Your task to perform on an android device: Search for seafood restaurants on Google Maps Image 0: 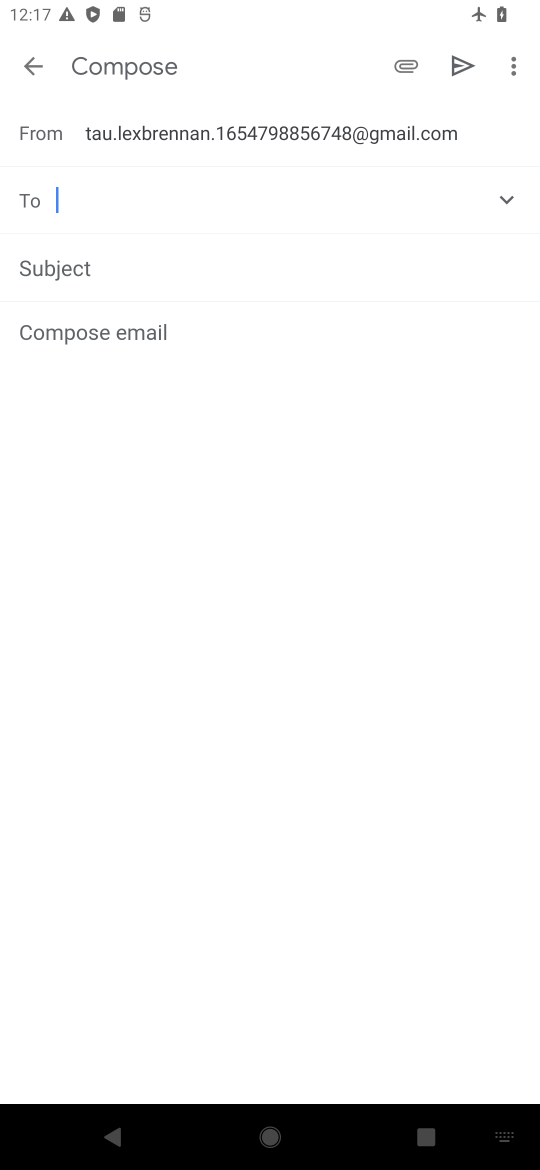
Step 0: press home button
Your task to perform on an android device: Search for seafood restaurants on Google Maps Image 1: 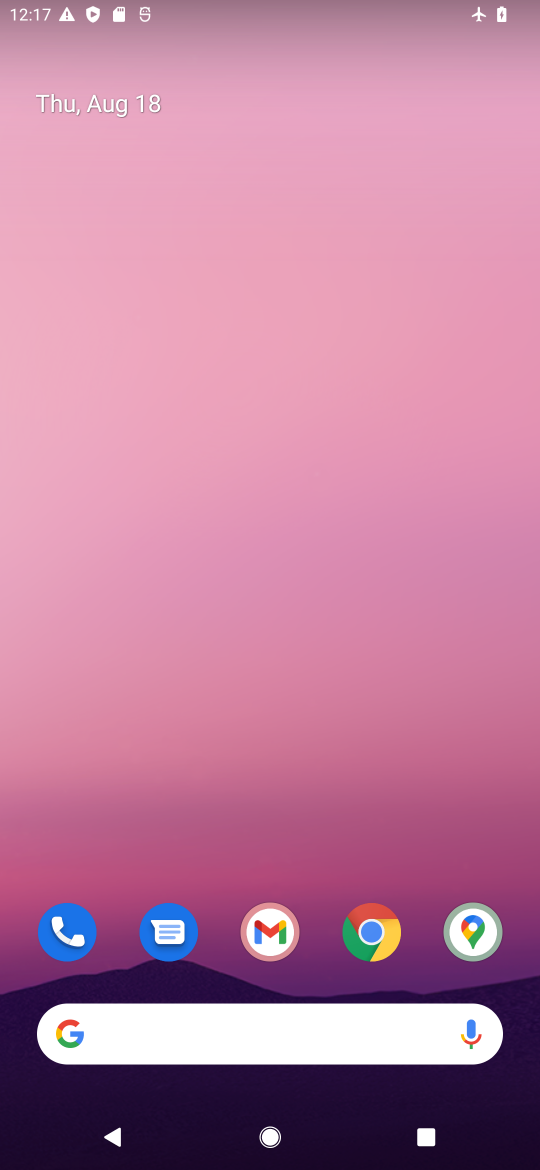
Step 1: click (471, 928)
Your task to perform on an android device: Search for seafood restaurants on Google Maps Image 2: 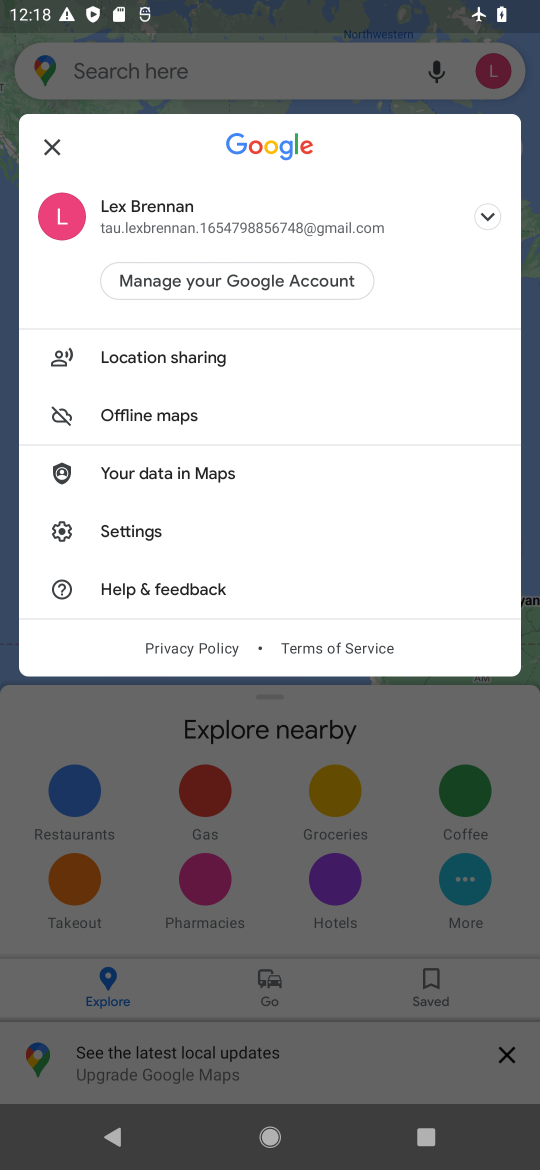
Step 2: click (51, 141)
Your task to perform on an android device: Search for seafood restaurants on Google Maps Image 3: 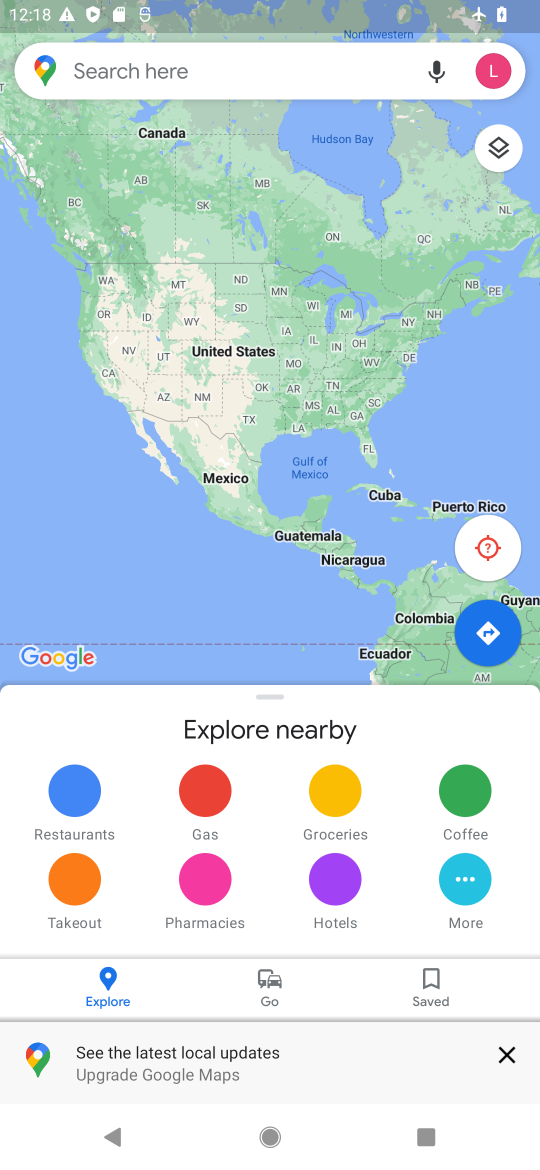
Step 3: click (282, 54)
Your task to perform on an android device: Search for seafood restaurants on Google Maps Image 4: 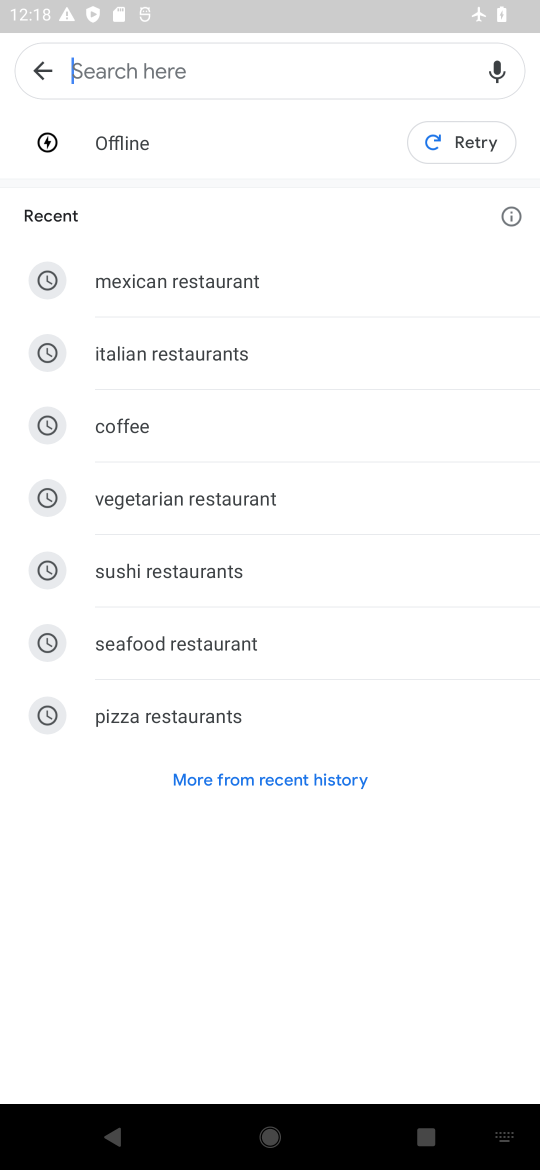
Step 4: click (178, 637)
Your task to perform on an android device: Search for seafood restaurants on Google Maps Image 5: 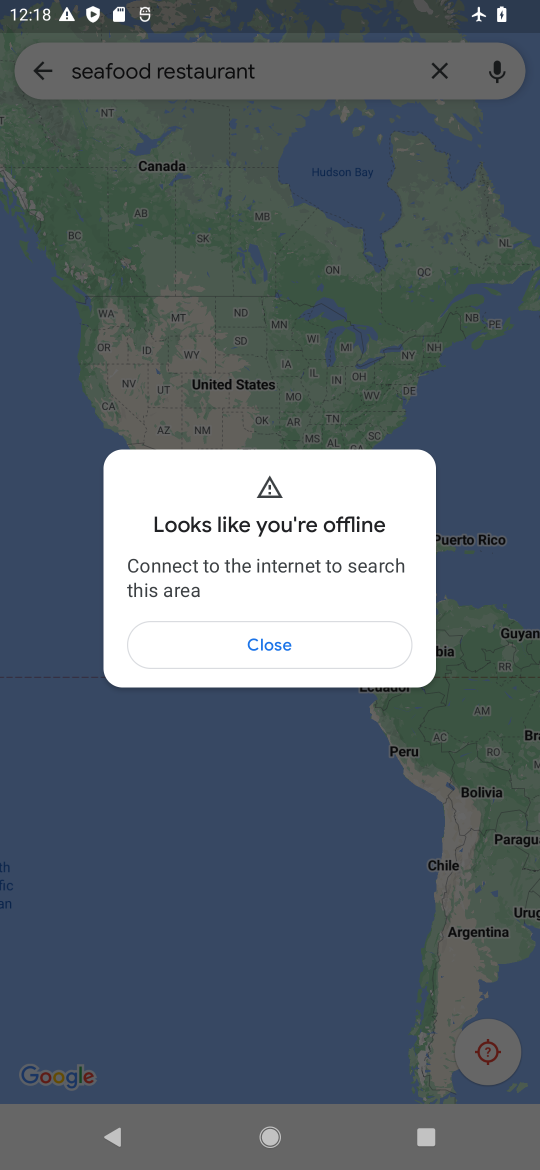
Step 5: click (273, 634)
Your task to perform on an android device: Search for seafood restaurants on Google Maps Image 6: 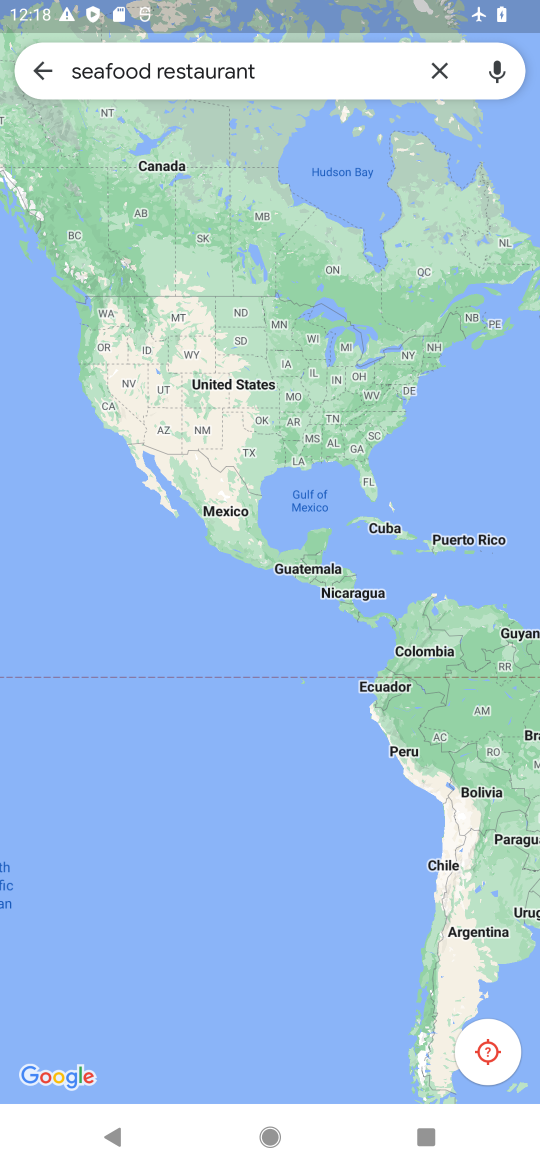
Step 6: task complete